Your task to perform on an android device: empty trash in google photos Image 0: 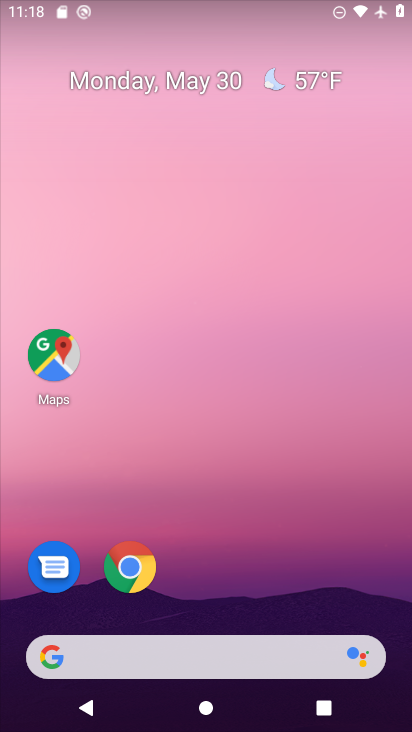
Step 0: drag from (201, 593) to (180, 99)
Your task to perform on an android device: empty trash in google photos Image 1: 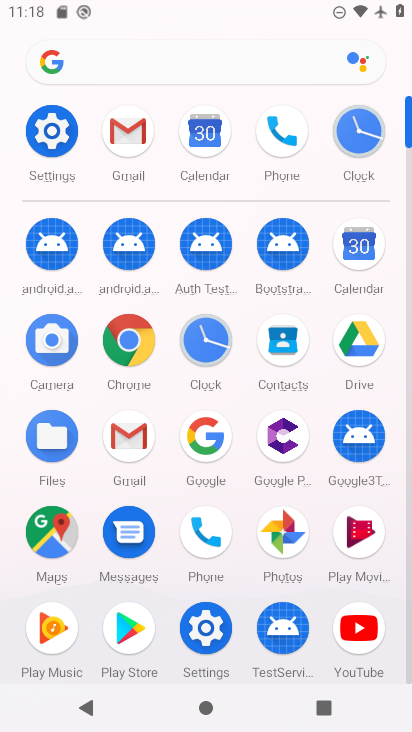
Step 1: click (269, 533)
Your task to perform on an android device: empty trash in google photos Image 2: 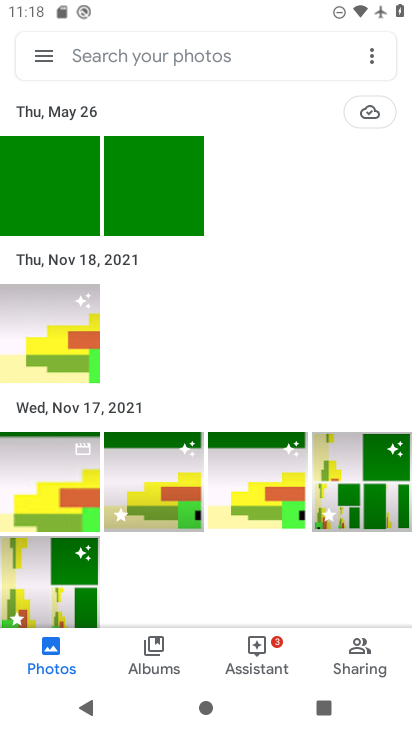
Step 2: click (39, 65)
Your task to perform on an android device: empty trash in google photos Image 3: 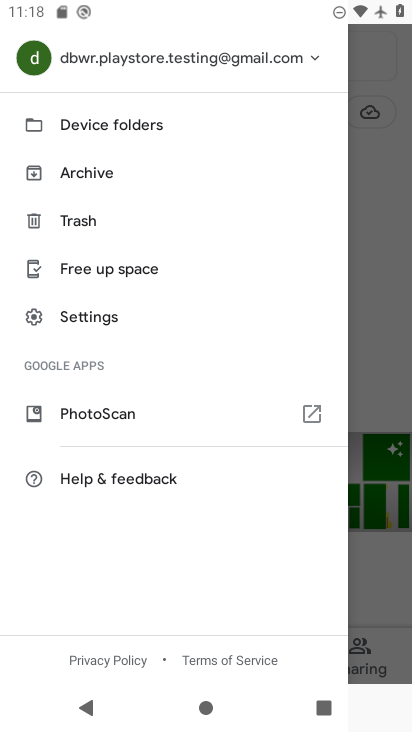
Step 3: click (101, 220)
Your task to perform on an android device: empty trash in google photos Image 4: 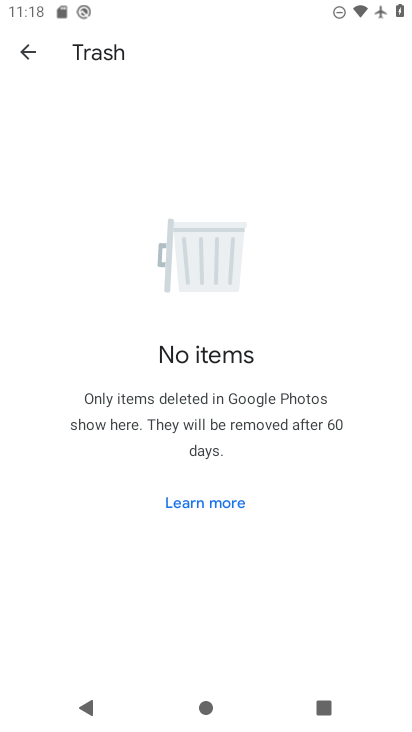
Step 4: task complete